Your task to perform on an android device: Open the phone app and click the voicemail tab. Image 0: 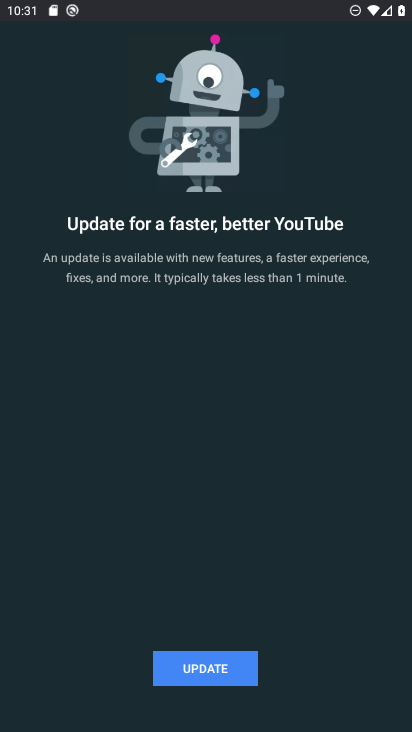
Step 0: press home button
Your task to perform on an android device: Open the phone app and click the voicemail tab. Image 1: 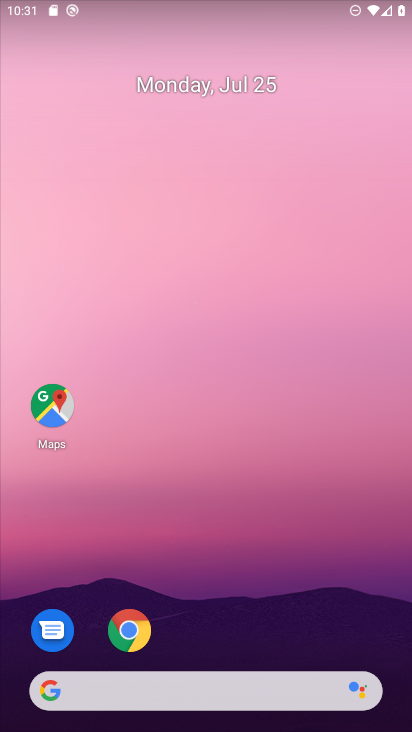
Step 1: drag from (274, 611) to (240, 46)
Your task to perform on an android device: Open the phone app and click the voicemail tab. Image 2: 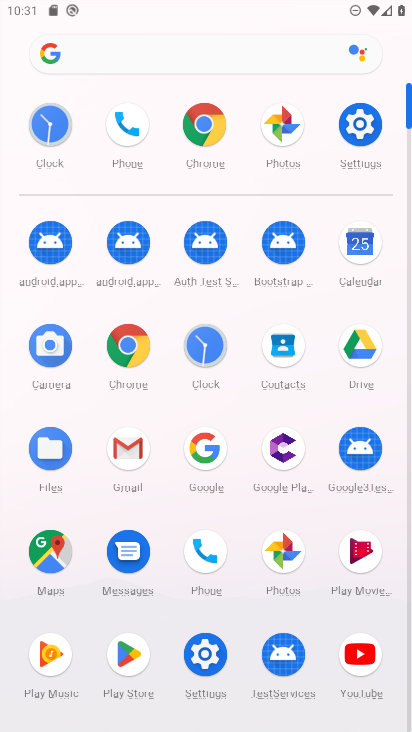
Step 2: click (125, 143)
Your task to perform on an android device: Open the phone app and click the voicemail tab. Image 3: 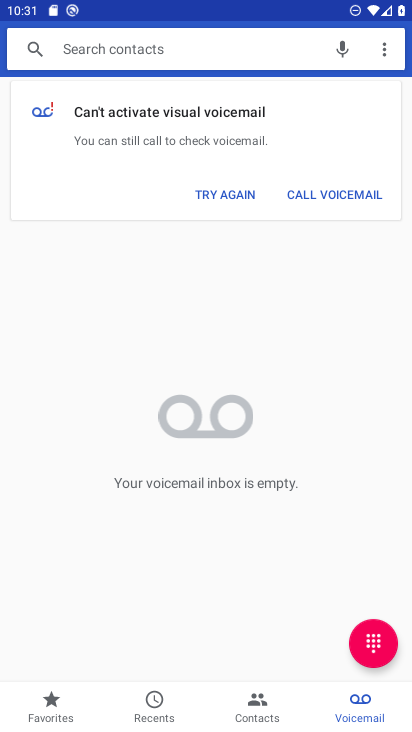
Step 3: click (388, 712)
Your task to perform on an android device: Open the phone app and click the voicemail tab. Image 4: 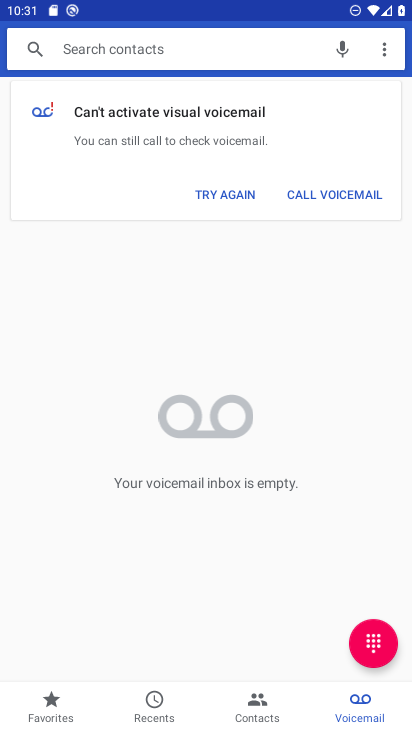
Step 4: task complete